Your task to perform on an android device: move a message to another label in the gmail app Image 0: 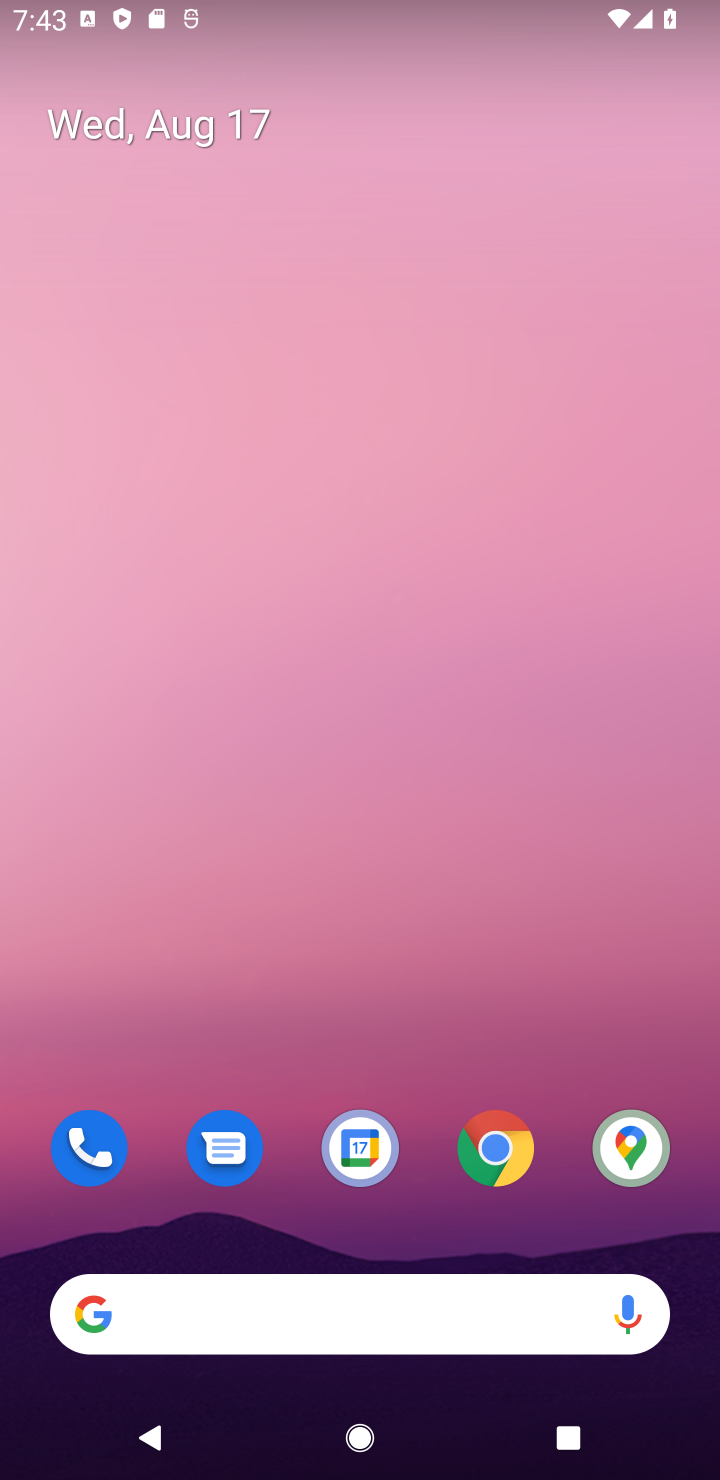
Step 0: drag from (570, 1234) to (559, 412)
Your task to perform on an android device: move a message to another label in the gmail app Image 1: 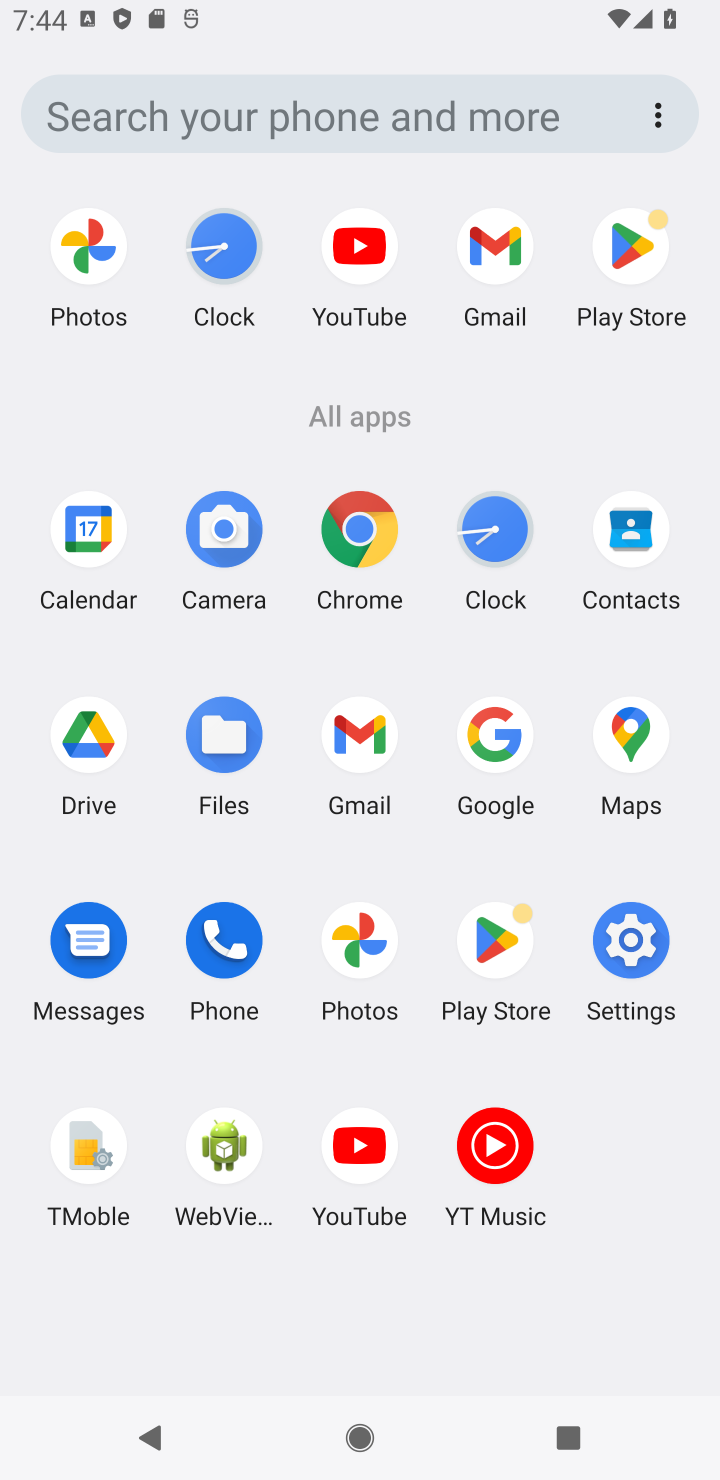
Step 1: click (356, 734)
Your task to perform on an android device: move a message to another label in the gmail app Image 2: 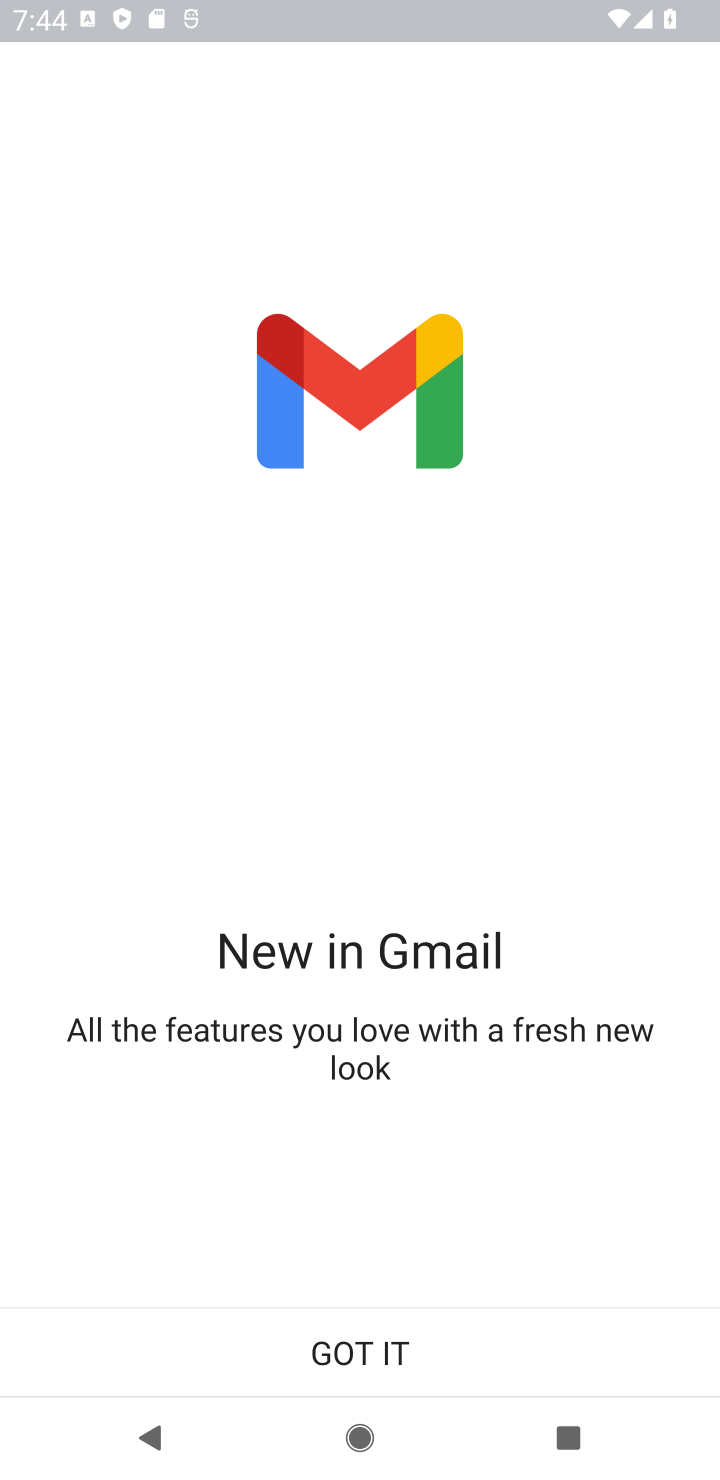
Step 2: click (364, 1350)
Your task to perform on an android device: move a message to another label in the gmail app Image 3: 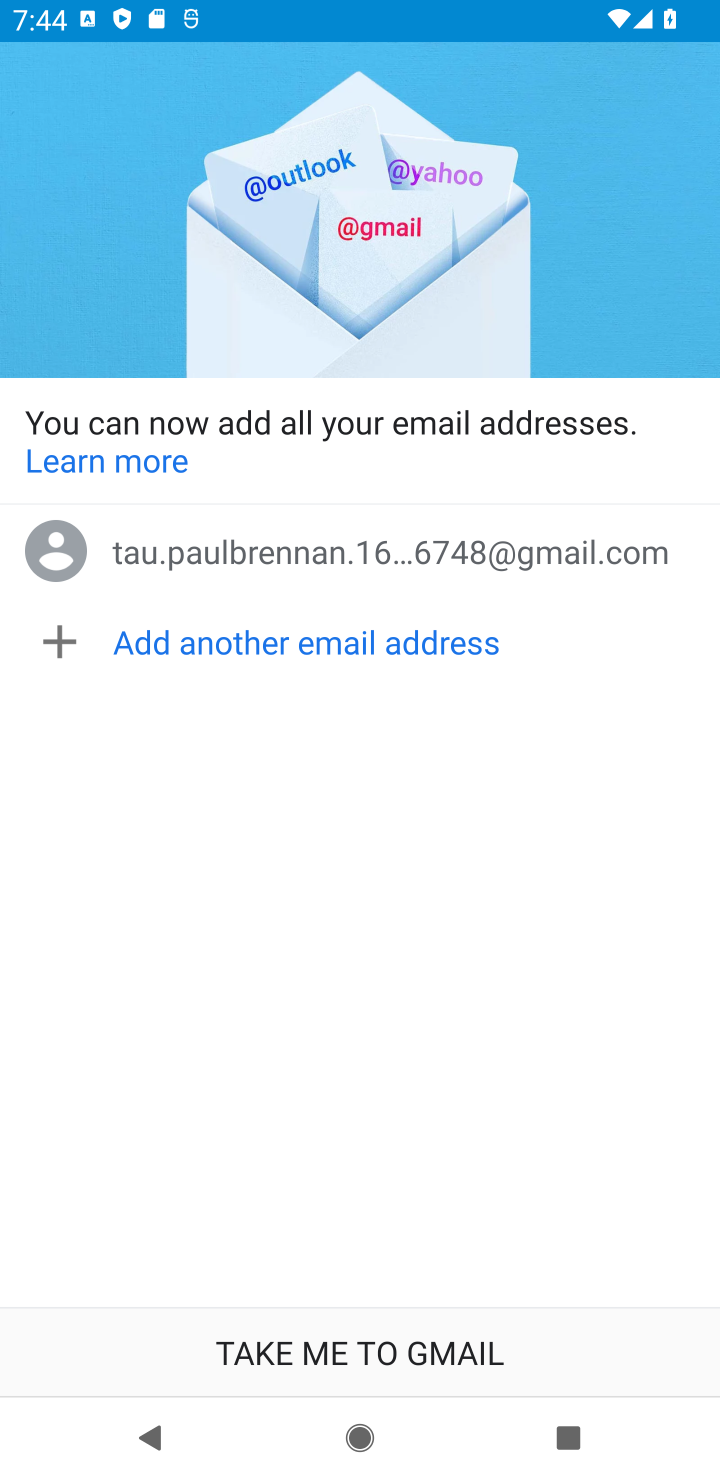
Step 3: click (365, 1343)
Your task to perform on an android device: move a message to another label in the gmail app Image 4: 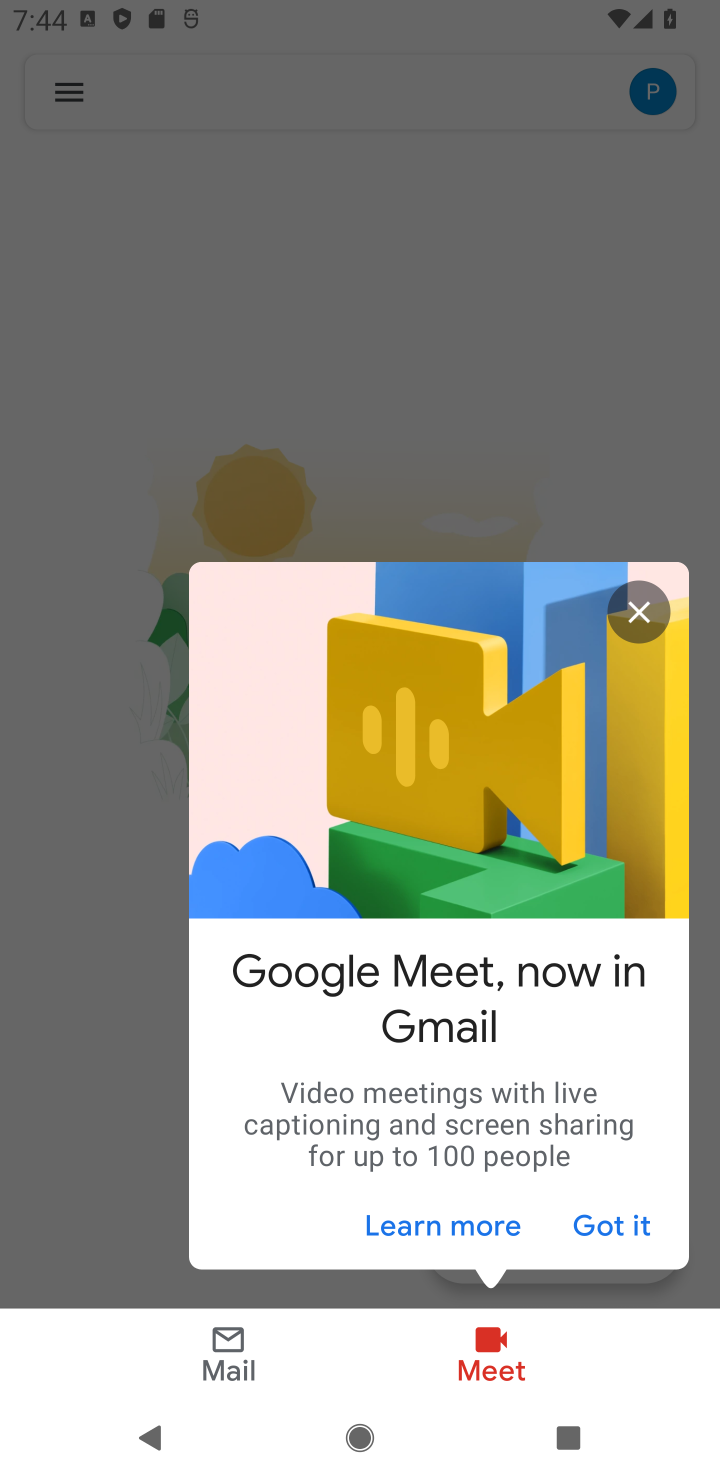
Step 4: click (614, 1223)
Your task to perform on an android device: move a message to another label in the gmail app Image 5: 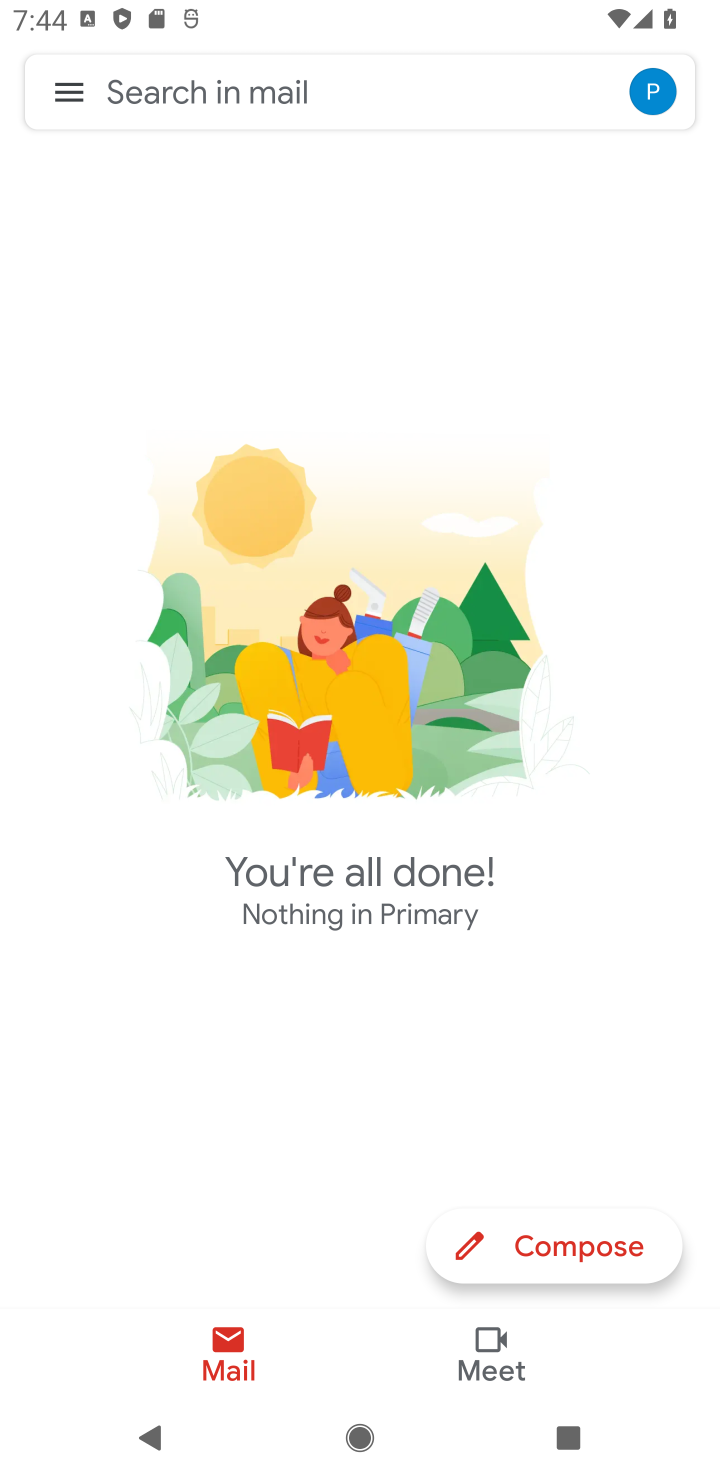
Step 5: click (75, 103)
Your task to perform on an android device: move a message to another label in the gmail app Image 6: 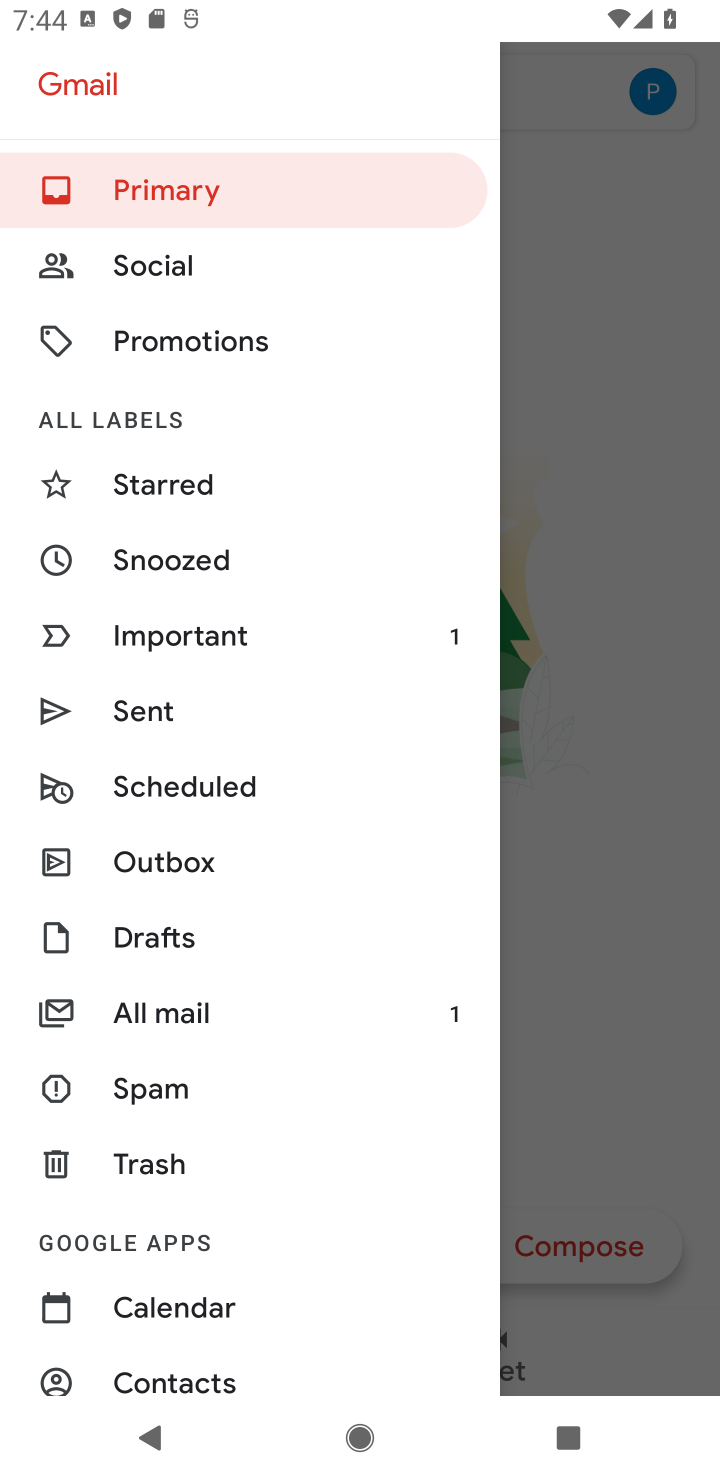
Step 6: click (189, 1006)
Your task to perform on an android device: move a message to another label in the gmail app Image 7: 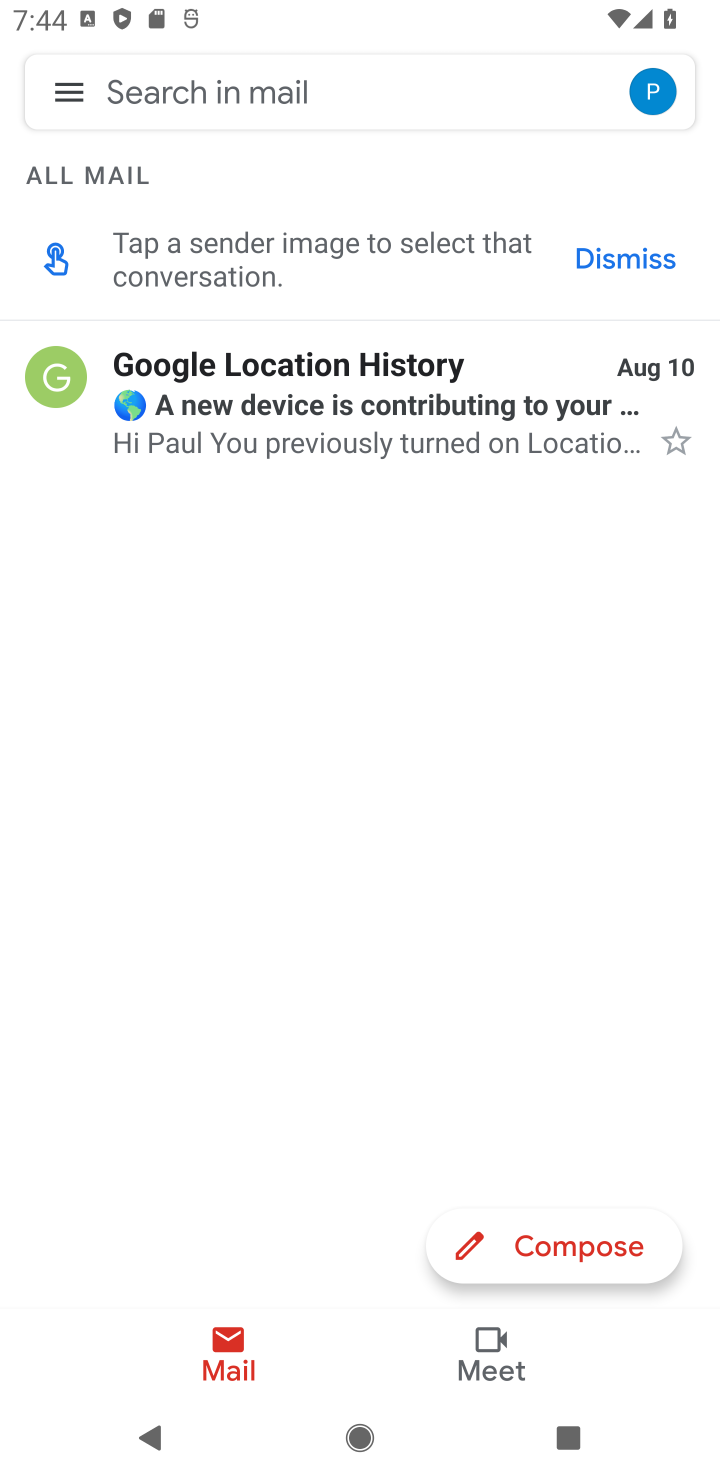
Step 7: click (359, 402)
Your task to perform on an android device: move a message to another label in the gmail app Image 8: 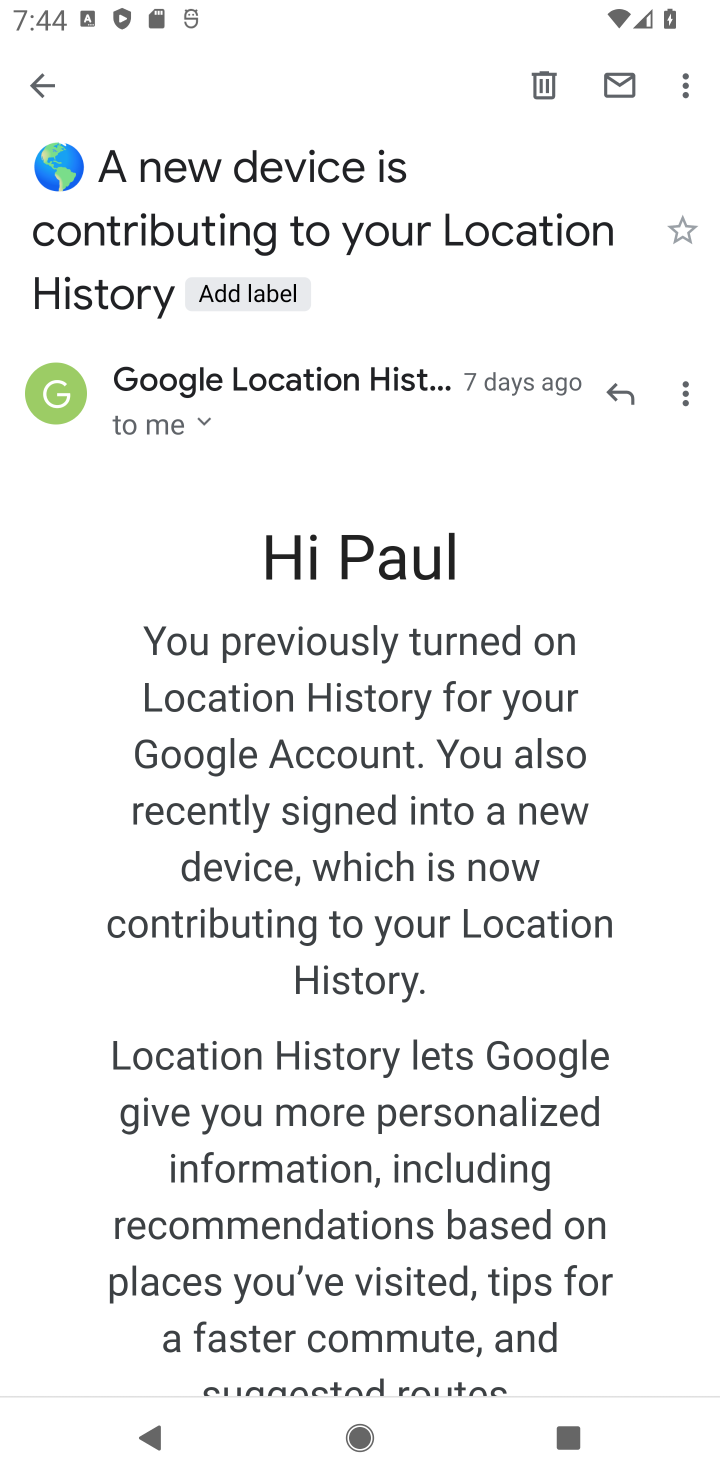
Step 8: click (678, 92)
Your task to perform on an android device: move a message to another label in the gmail app Image 9: 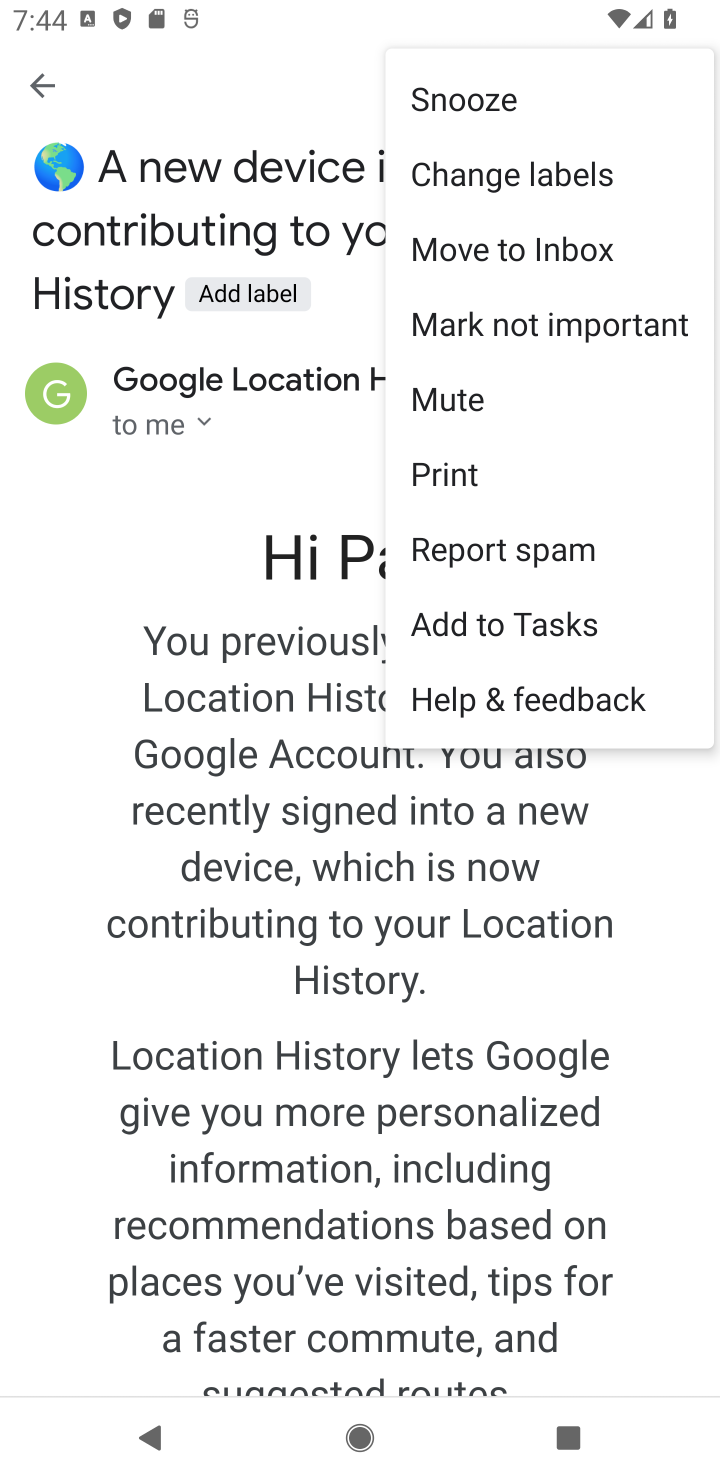
Step 9: click (517, 249)
Your task to perform on an android device: move a message to another label in the gmail app Image 10: 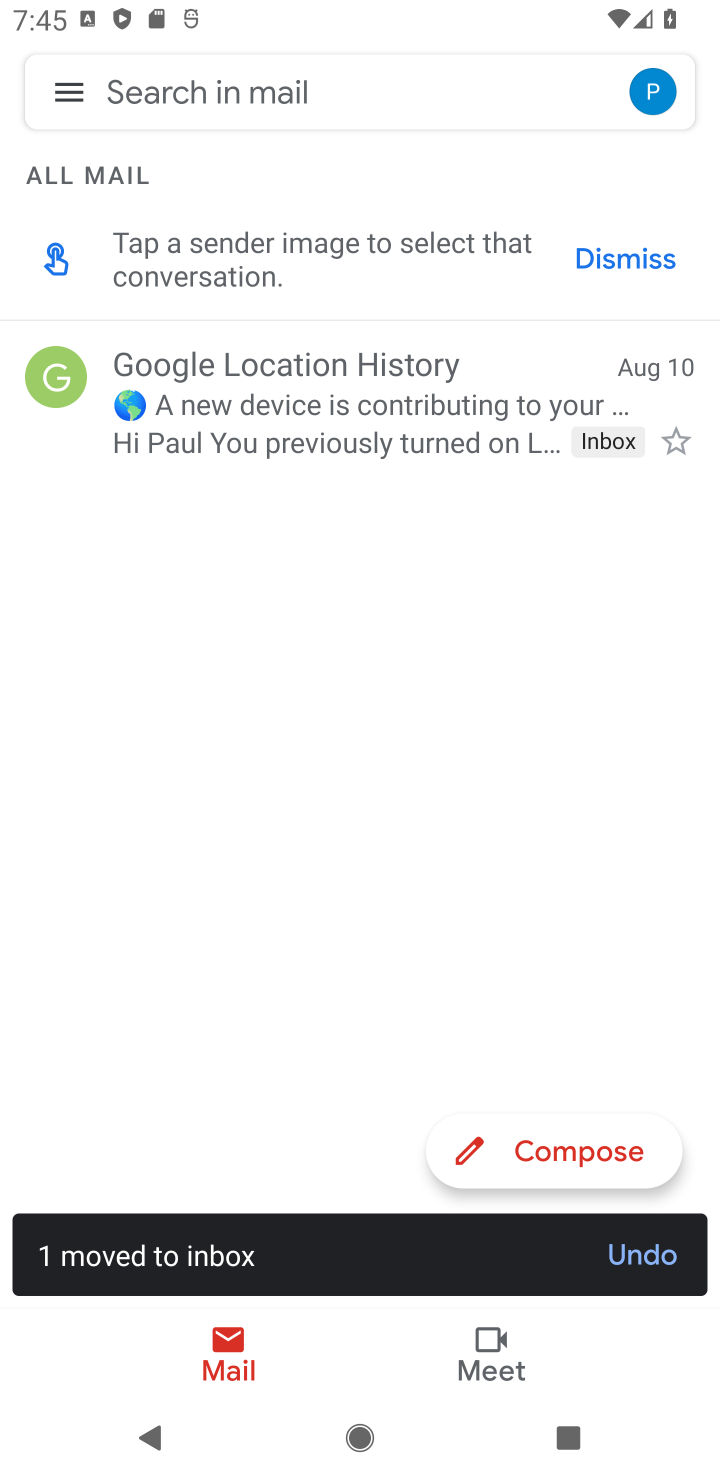
Step 10: task complete